Your task to perform on an android device: toggle data saver in the chrome app Image 0: 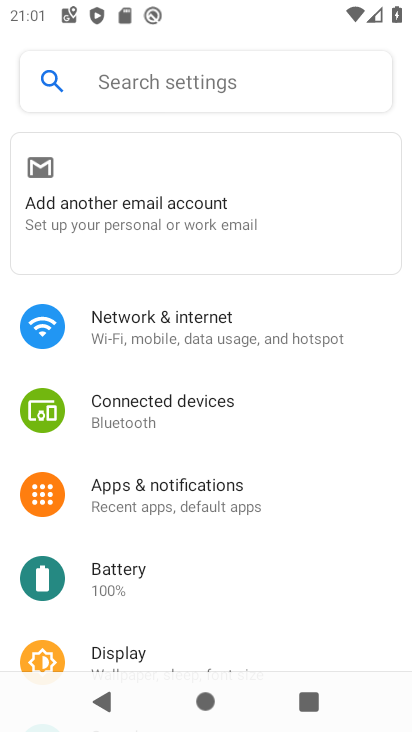
Step 0: press home button
Your task to perform on an android device: toggle data saver in the chrome app Image 1: 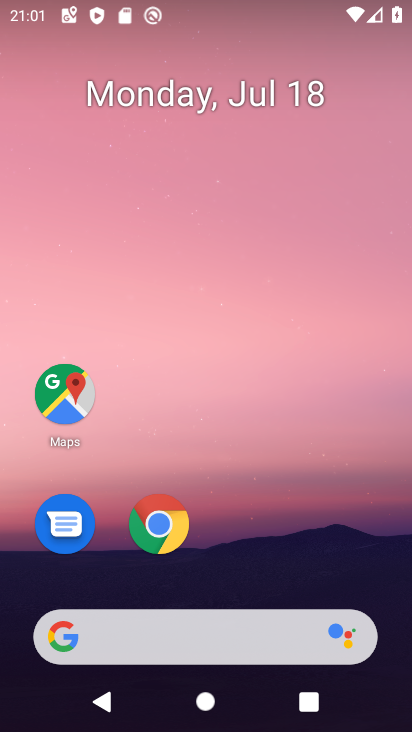
Step 1: click (158, 518)
Your task to perform on an android device: toggle data saver in the chrome app Image 2: 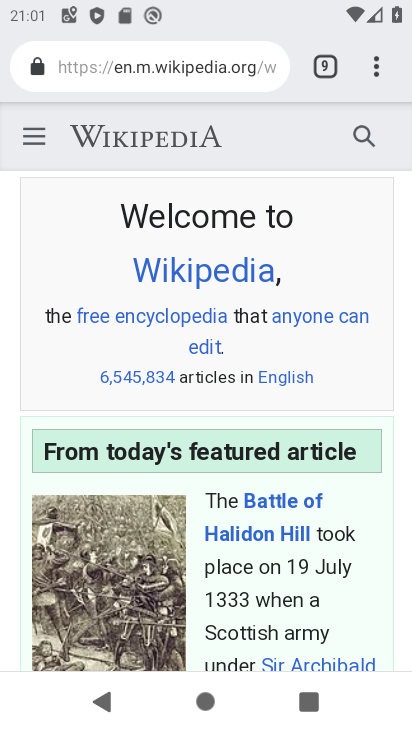
Step 2: click (376, 75)
Your task to perform on an android device: toggle data saver in the chrome app Image 3: 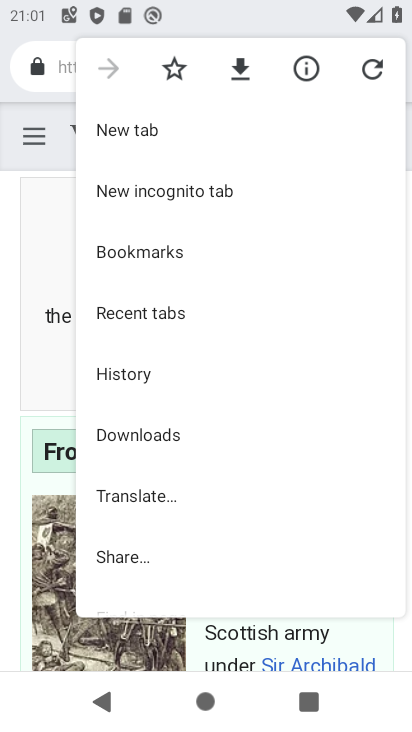
Step 3: drag from (263, 471) to (269, 119)
Your task to perform on an android device: toggle data saver in the chrome app Image 4: 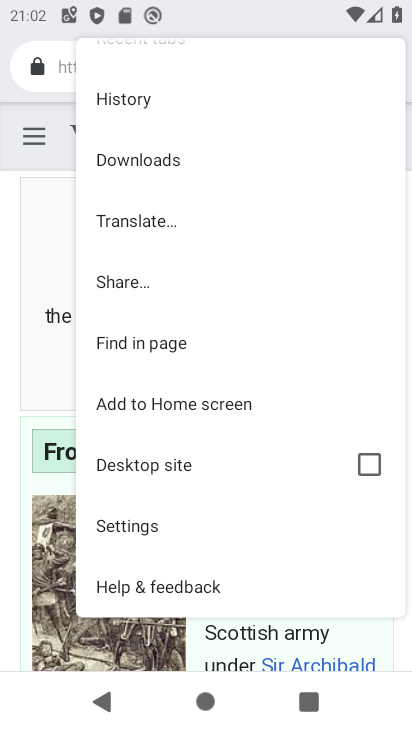
Step 4: click (130, 518)
Your task to perform on an android device: toggle data saver in the chrome app Image 5: 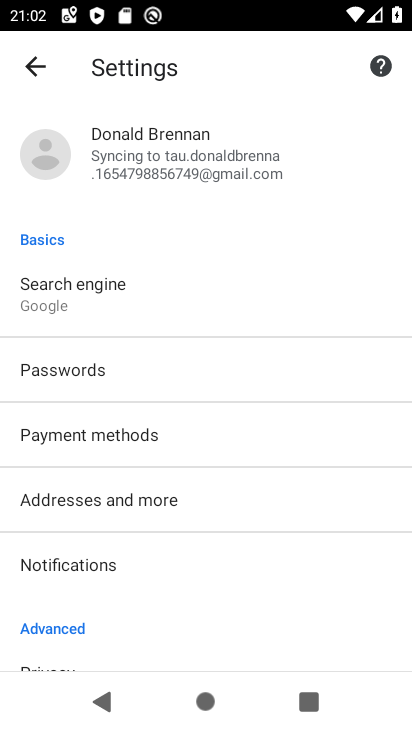
Step 5: drag from (257, 461) to (275, 183)
Your task to perform on an android device: toggle data saver in the chrome app Image 6: 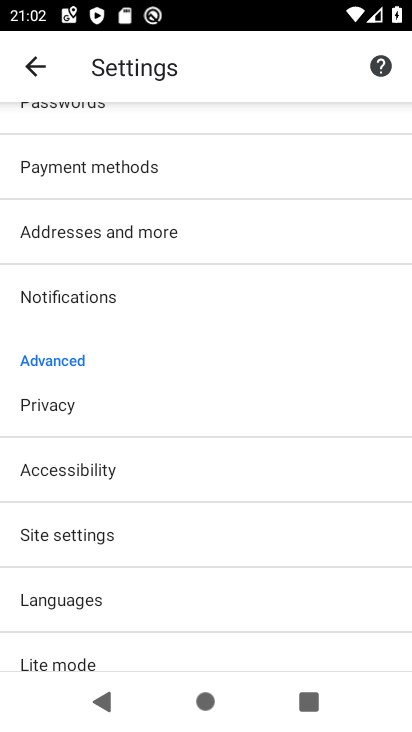
Step 6: drag from (145, 566) to (194, 258)
Your task to perform on an android device: toggle data saver in the chrome app Image 7: 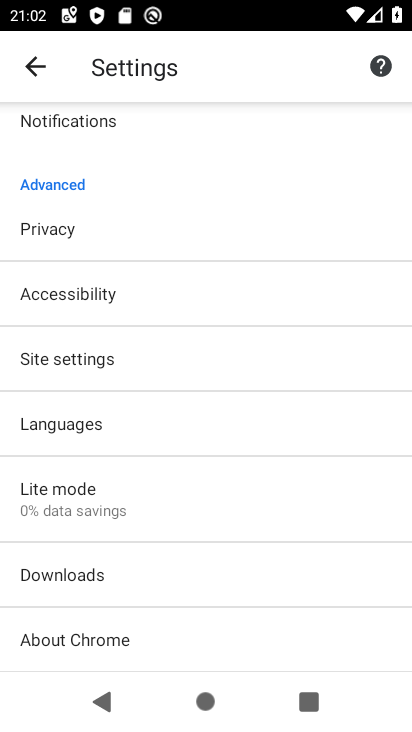
Step 7: click (128, 508)
Your task to perform on an android device: toggle data saver in the chrome app Image 8: 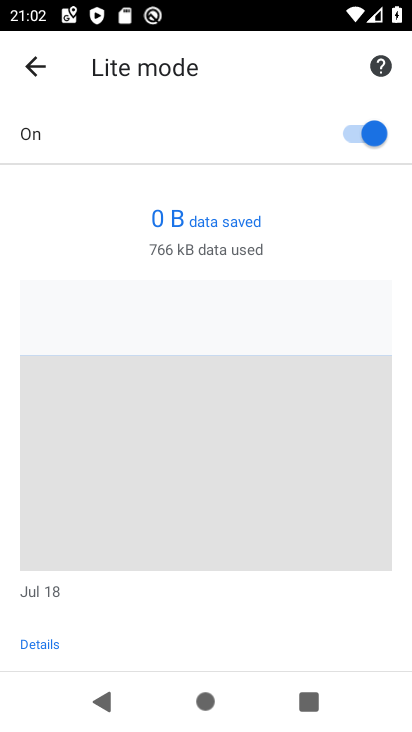
Step 8: click (364, 132)
Your task to perform on an android device: toggle data saver in the chrome app Image 9: 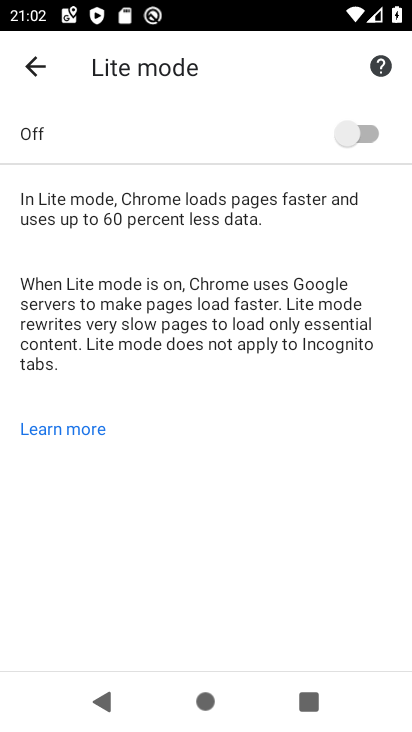
Step 9: task complete